Your task to perform on an android device: Open Google Chrome and open the bookmarks view Image 0: 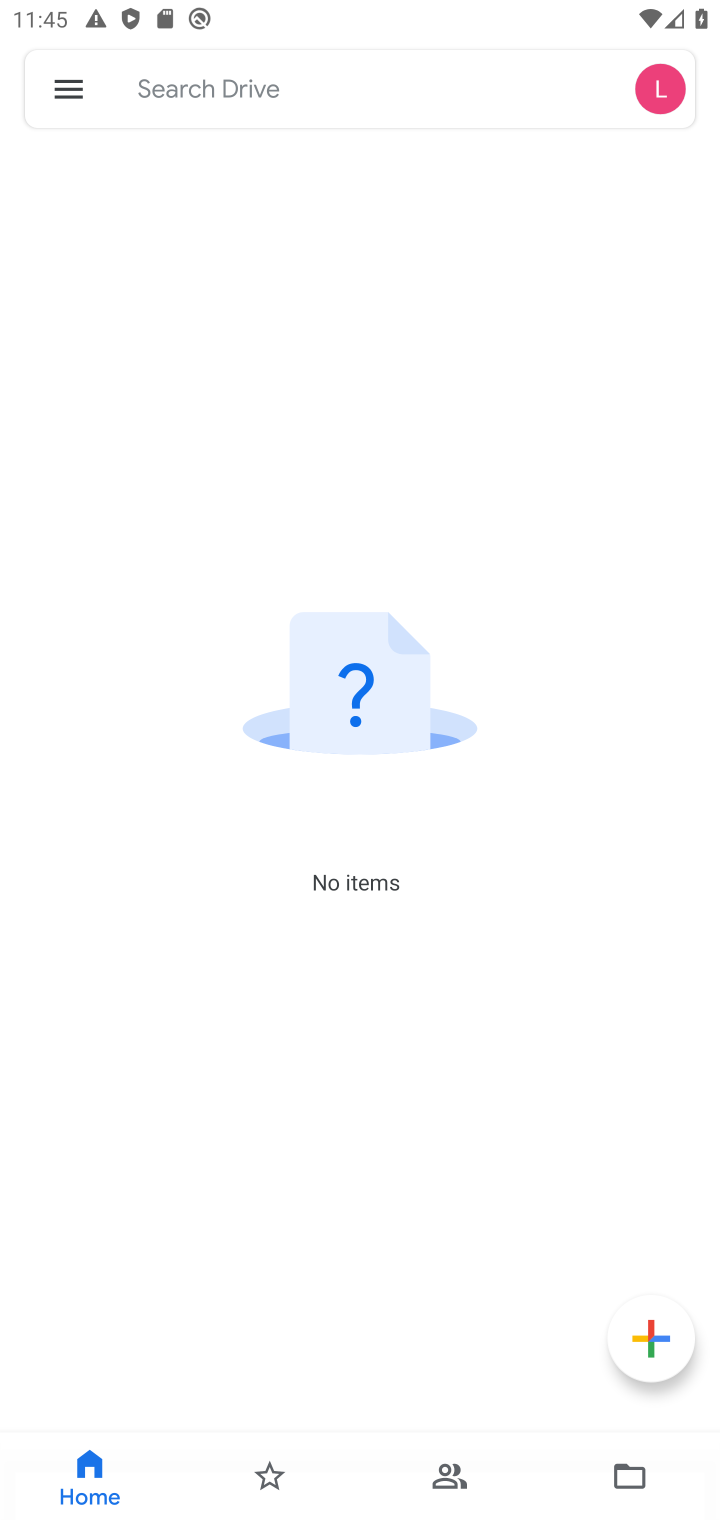
Step 0: press home button
Your task to perform on an android device: Open Google Chrome and open the bookmarks view Image 1: 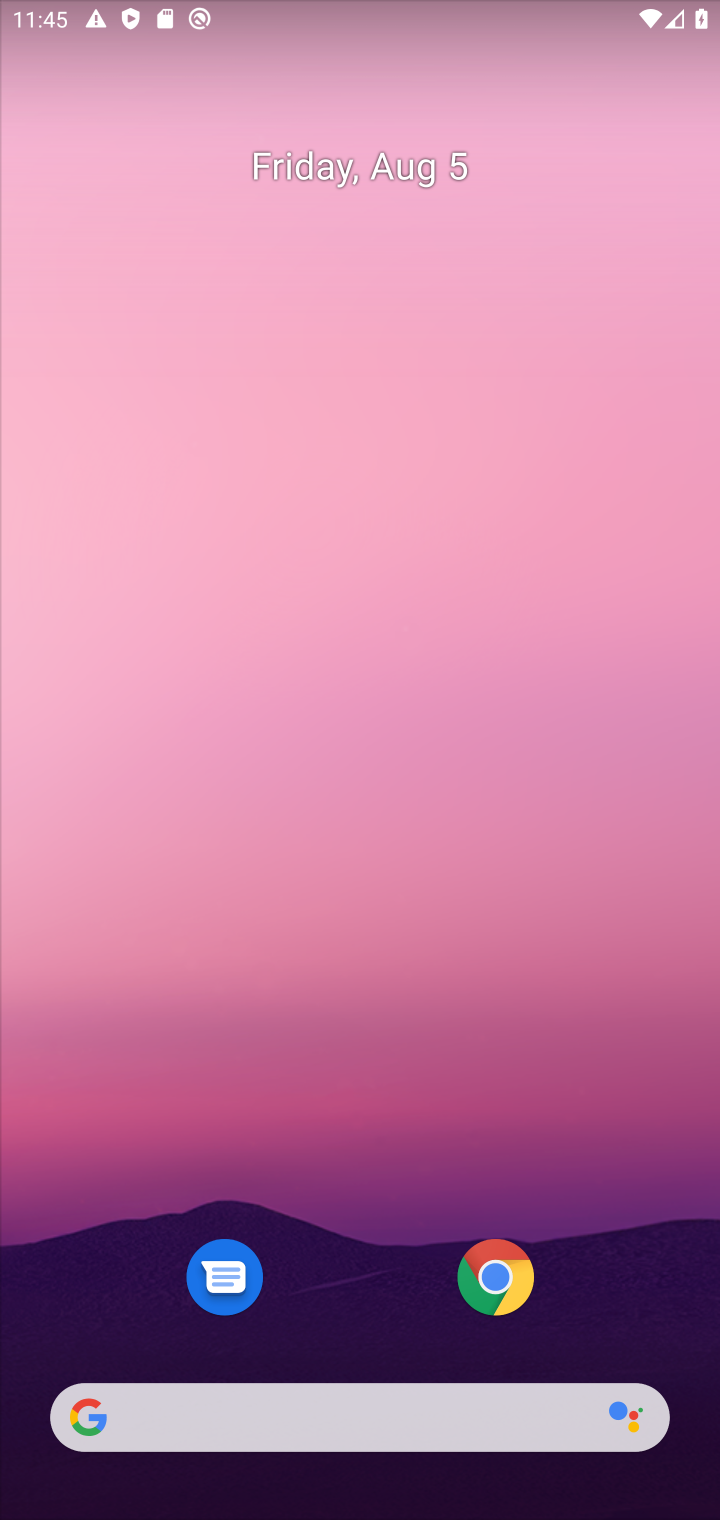
Step 1: click (487, 1295)
Your task to perform on an android device: Open Google Chrome and open the bookmarks view Image 2: 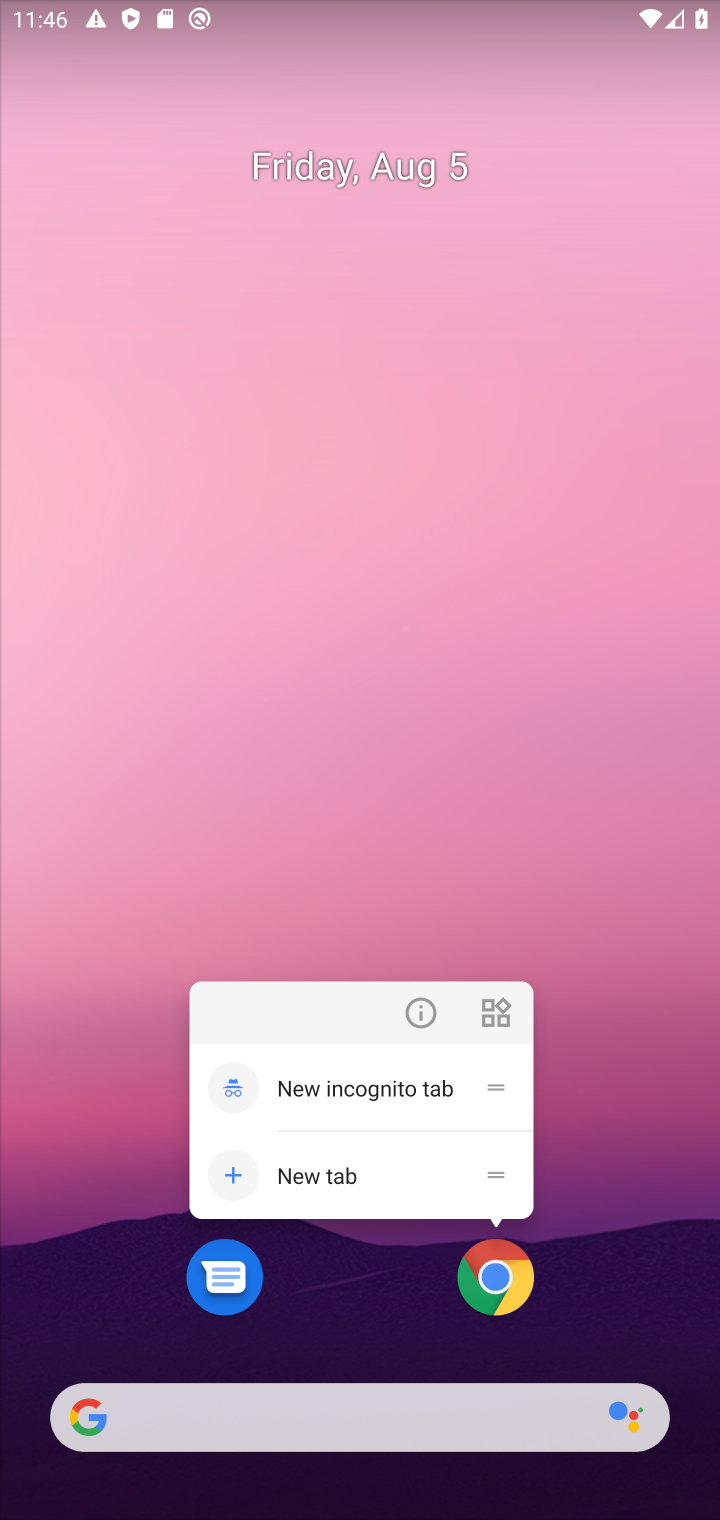
Step 2: click (487, 1296)
Your task to perform on an android device: Open Google Chrome and open the bookmarks view Image 3: 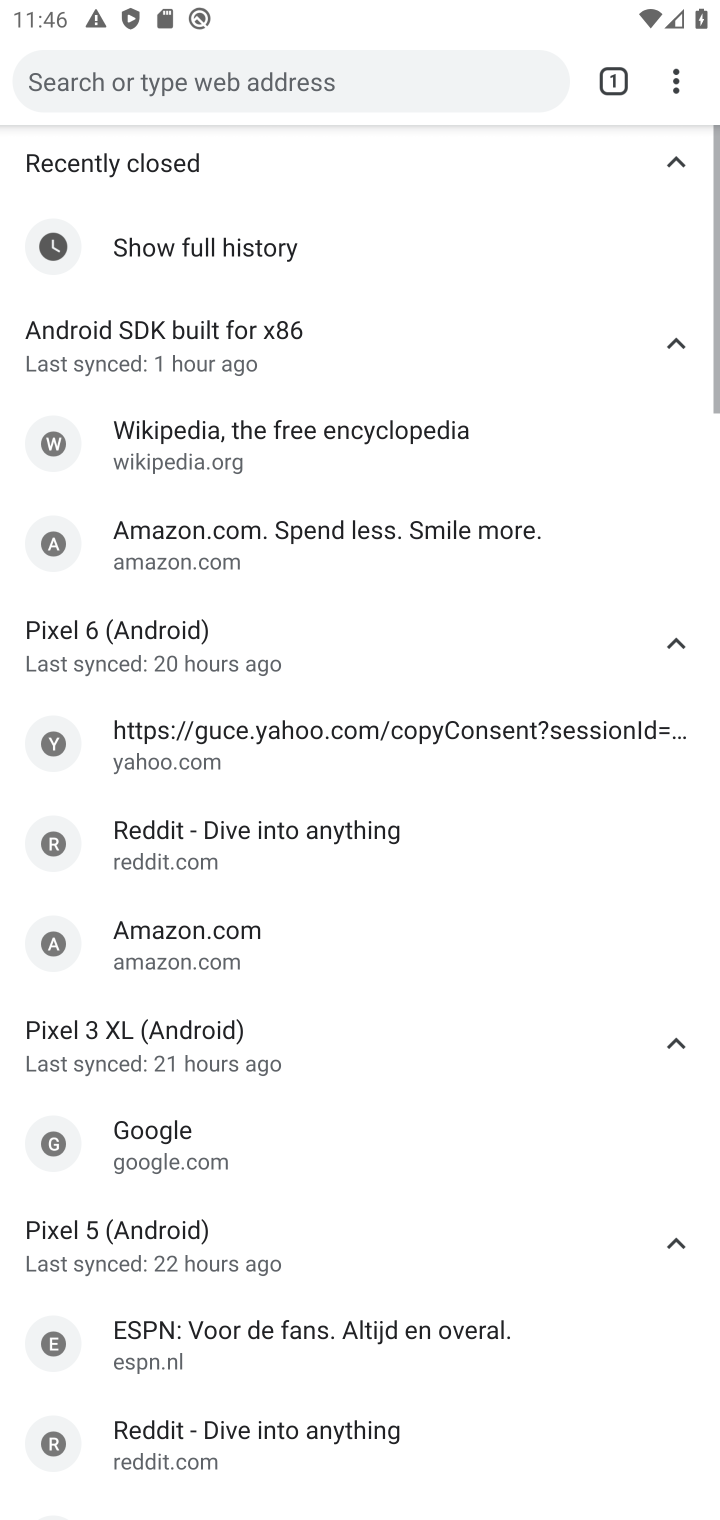
Step 3: drag from (670, 76) to (445, 317)
Your task to perform on an android device: Open Google Chrome and open the bookmarks view Image 4: 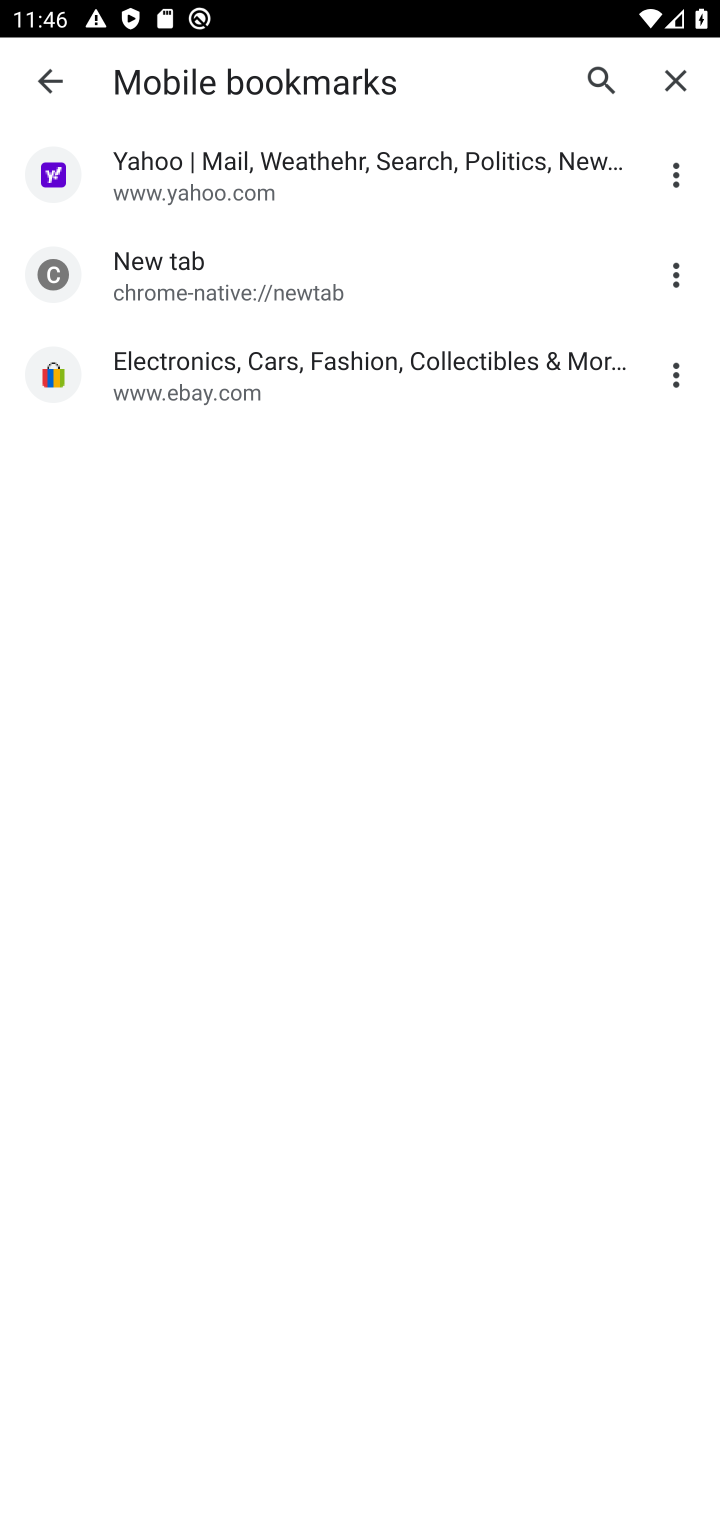
Step 4: click (213, 277)
Your task to perform on an android device: Open Google Chrome and open the bookmarks view Image 5: 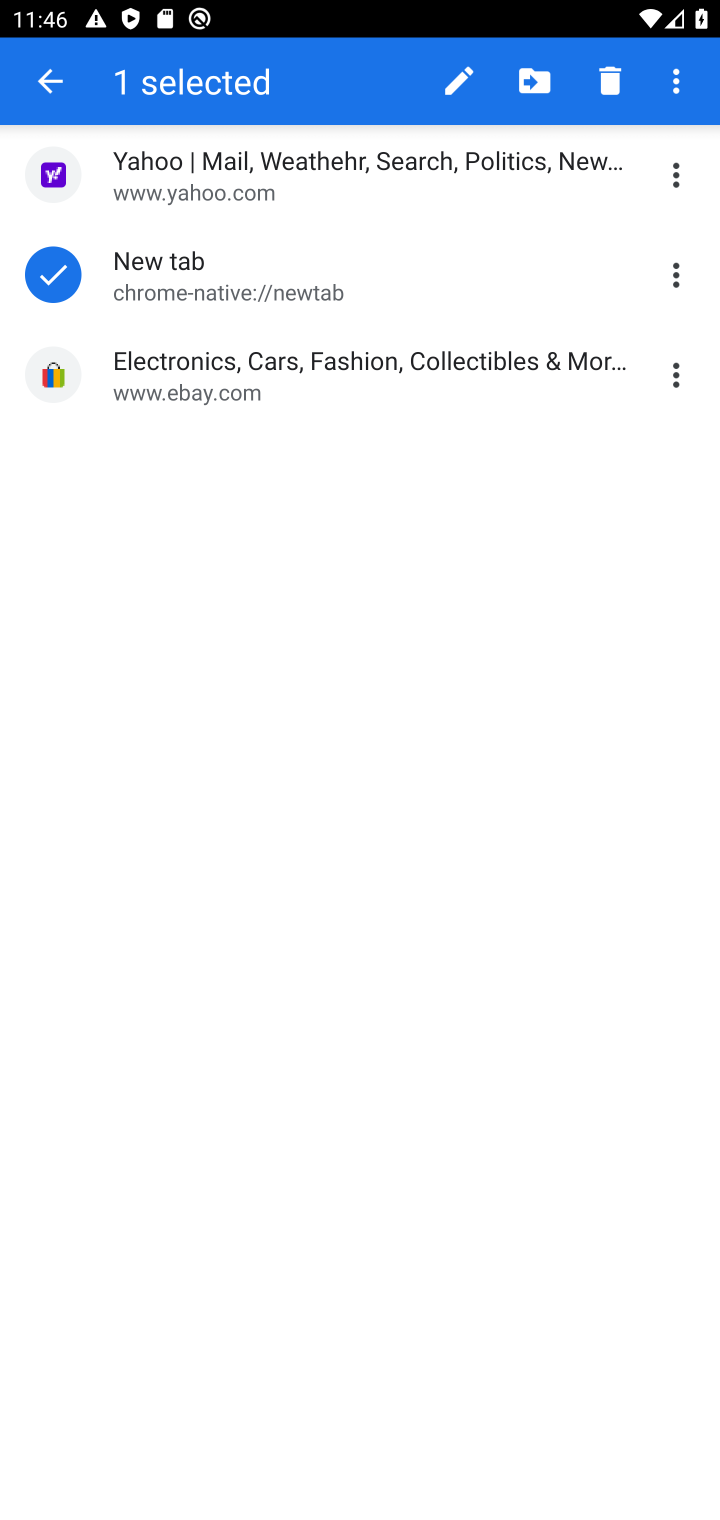
Step 5: click (213, 278)
Your task to perform on an android device: Open Google Chrome and open the bookmarks view Image 6: 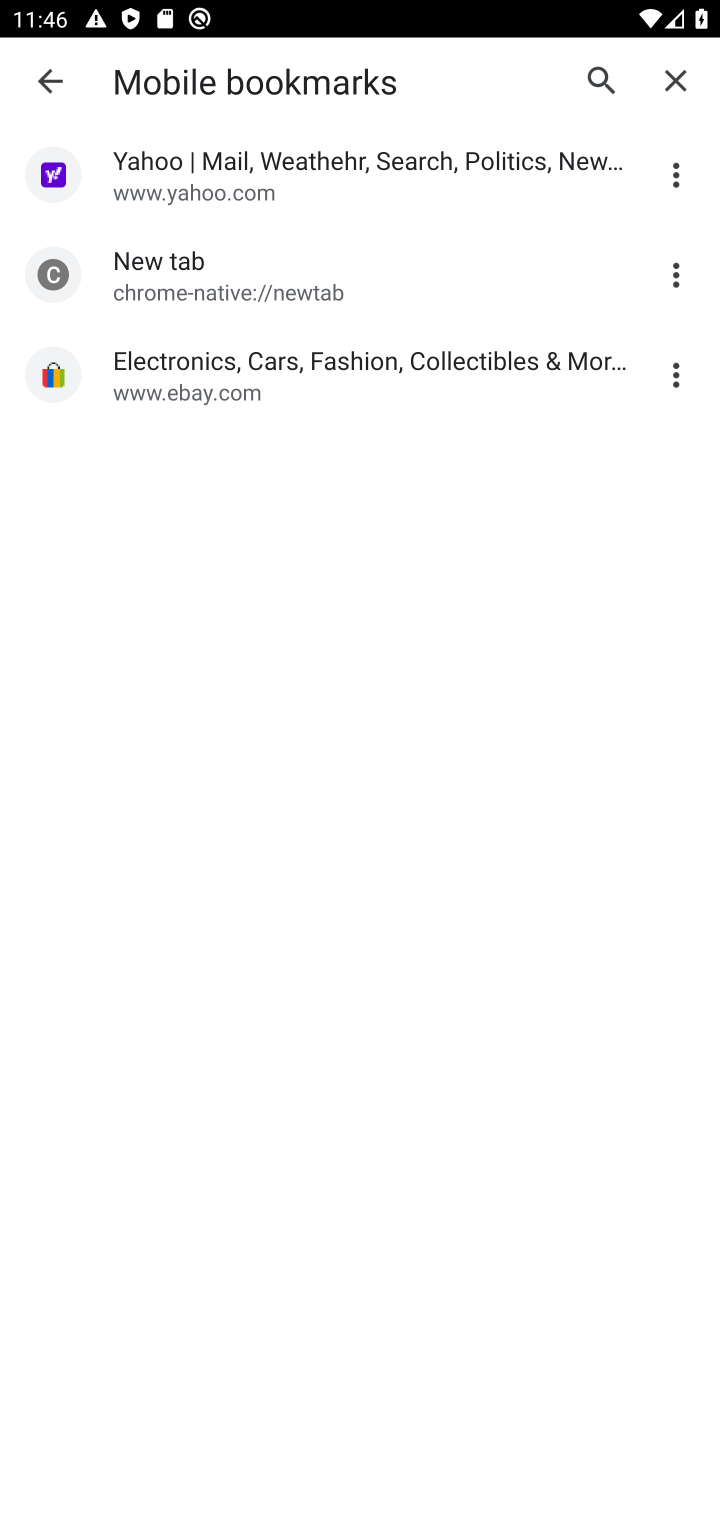
Step 6: click (398, 284)
Your task to perform on an android device: Open Google Chrome and open the bookmarks view Image 7: 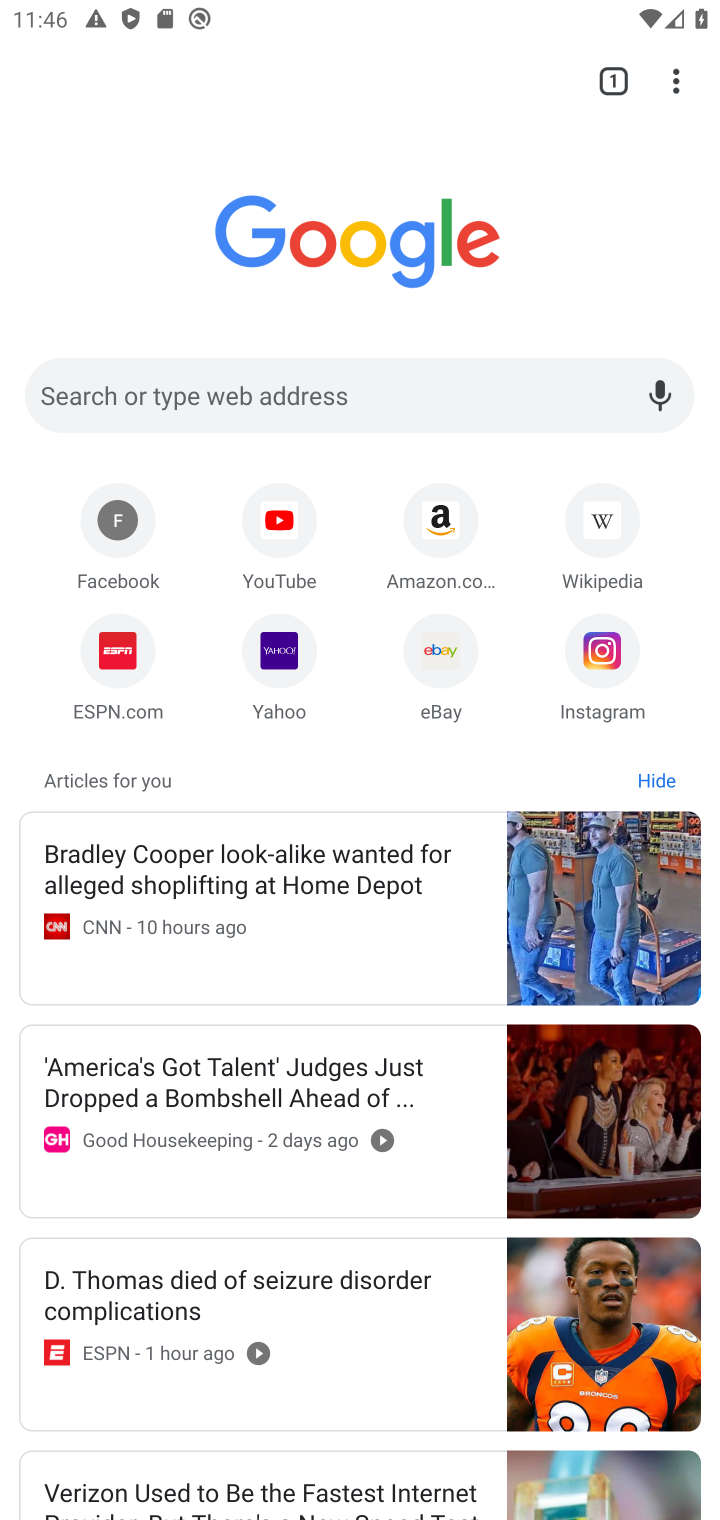
Step 7: task complete